Your task to perform on an android device: change notifications settings Image 0: 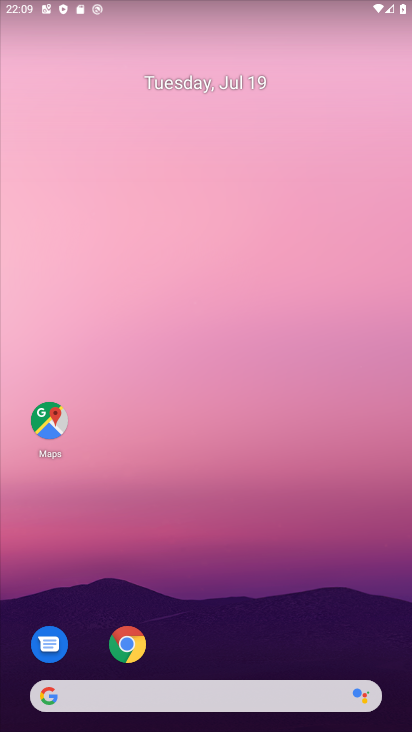
Step 0: drag from (211, 730) to (204, 209)
Your task to perform on an android device: change notifications settings Image 1: 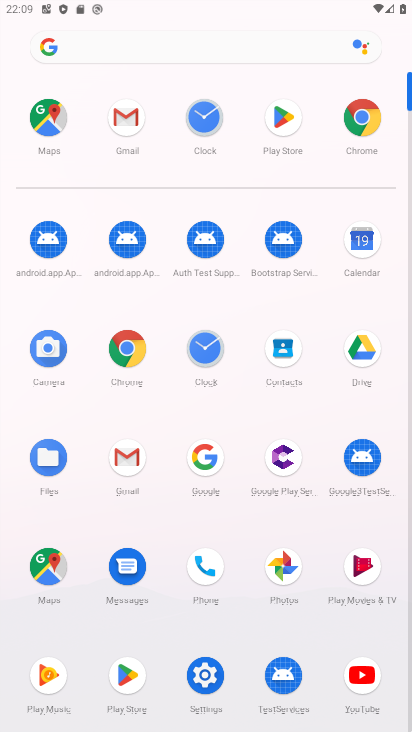
Step 1: click (205, 671)
Your task to perform on an android device: change notifications settings Image 2: 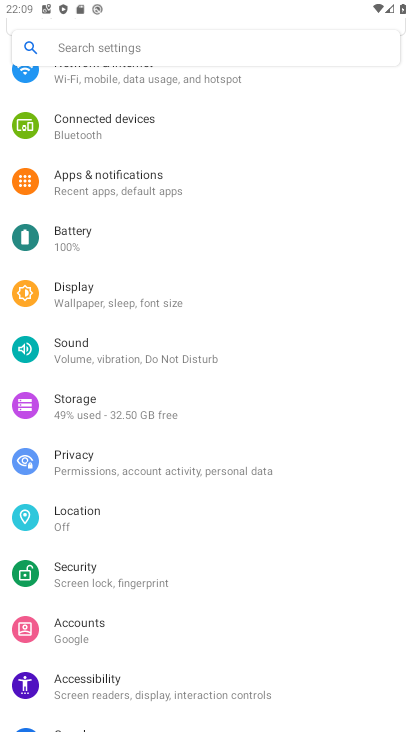
Step 2: click (85, 192)
Your task to perform on an android device: change notifications settings Image 3: 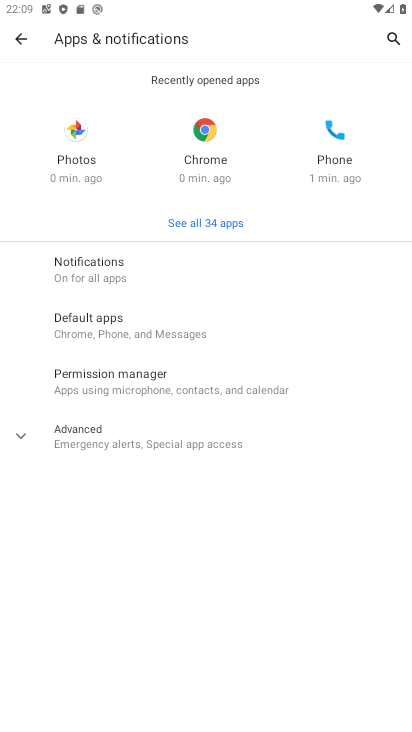
Step 3: click (74, 268)
Your task to perform on an android device: change notifications settings Image 4: 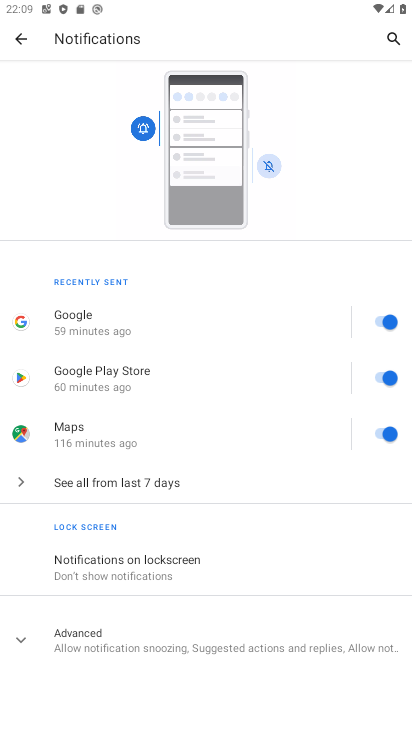
Step 4: click (59, 637)
Your task to perform on an android device: change notifications settings Image 5: 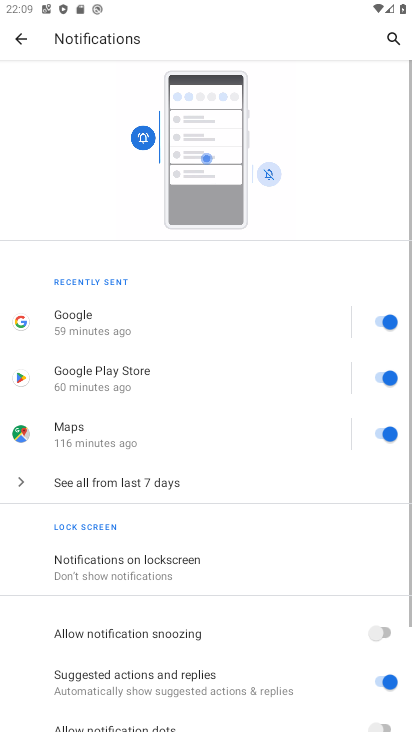
Step 5: click (384, 673)
Your task to perform on an android device: change notifications settings Image 6: 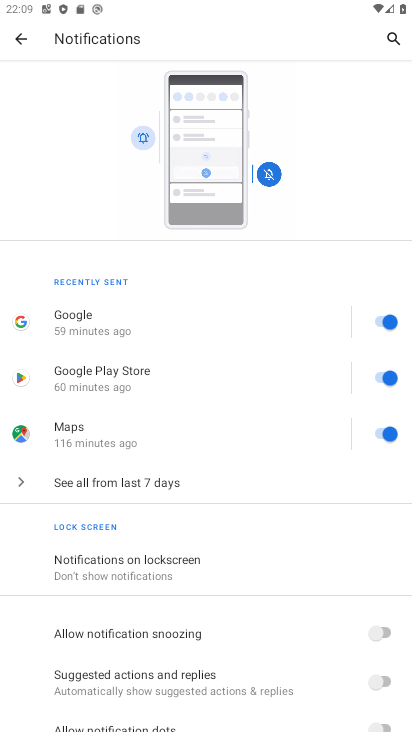
Step 6: task complete